Your task to perform on an android device: Turn off the flashlight Image 0: 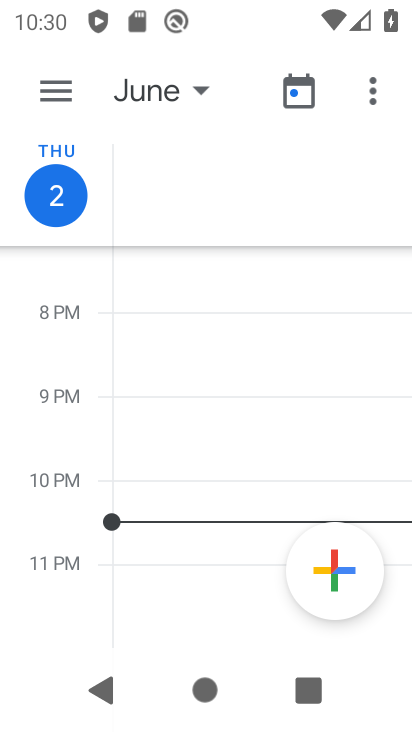
Step 0: press home button
Your task to perform on an android device: Turn off the flashlight Image 1: 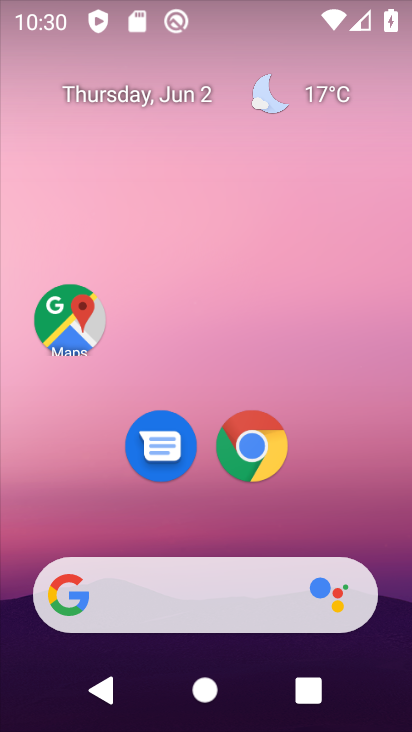
Step 1: drag from (242, 18) to (243, 365)
Your task to perform on an android device: Turn off the flashlight Image 2: 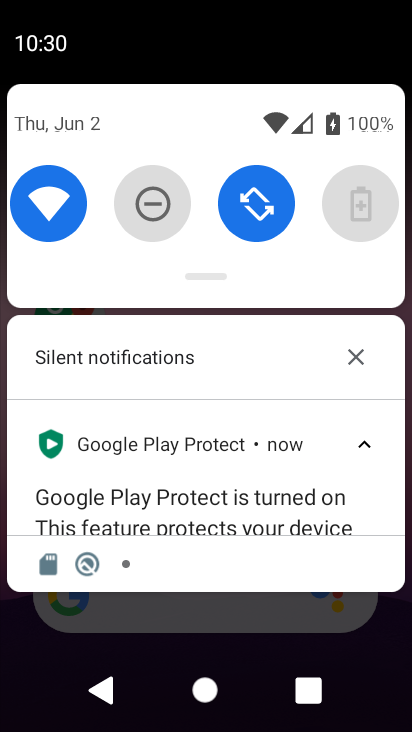
Step 2: drag from (197, 123) to (198, 399)
Your task to perform on an android device: Turn off the flashlight Image 3: 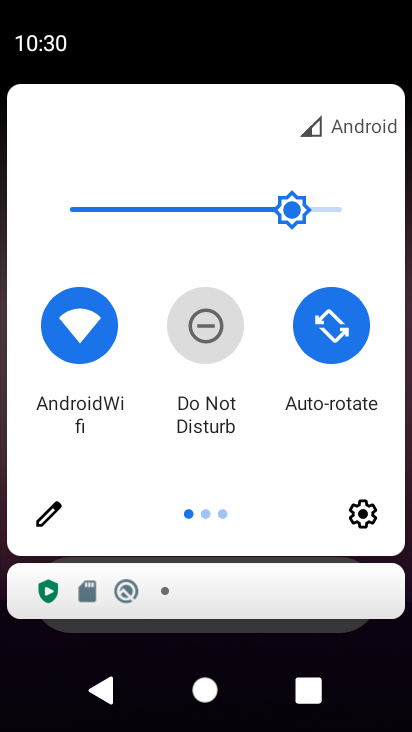
Step 3: click (40, 519)
Your task to perform on an android device: Turn off the flashlight Image 4: 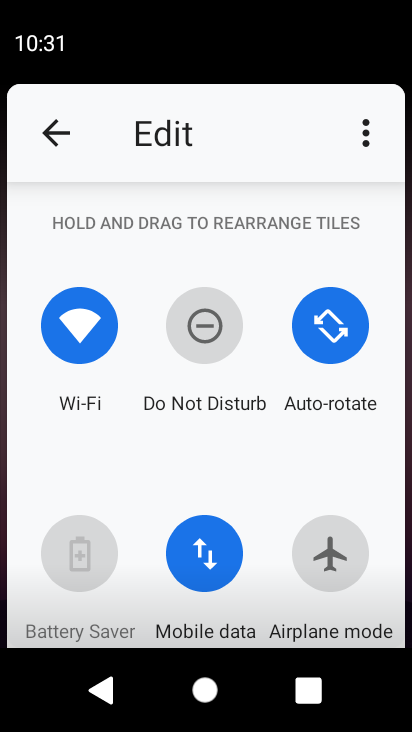
Step 4: task complete